Your task to perform on an android device: toggle show notifications on the lock screen Image 0: 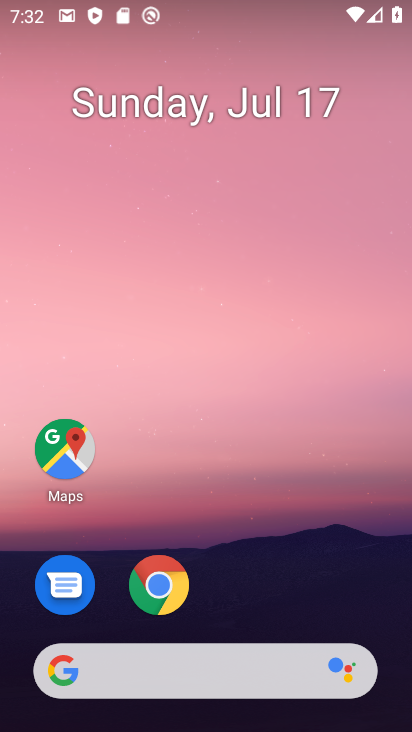
Step 0: drag from (200, 673) to (251, 0)
Your task to perform on an android device: toggle show notifications on the lock screen Image 1: 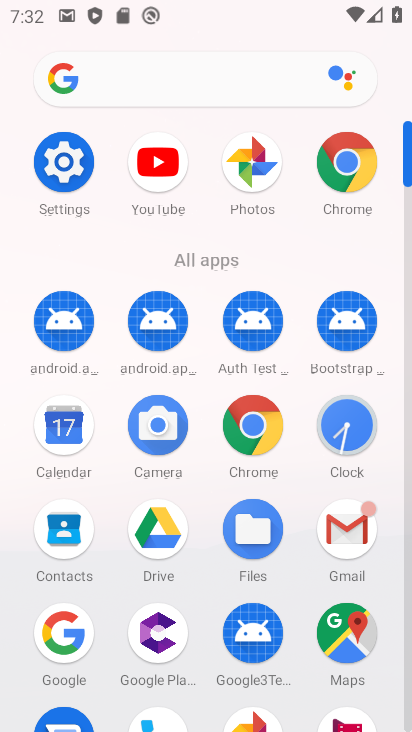
Step 1: click (63, 163)
Your task to perform on an android device: toggle show notifications on the lock screen Image 2: 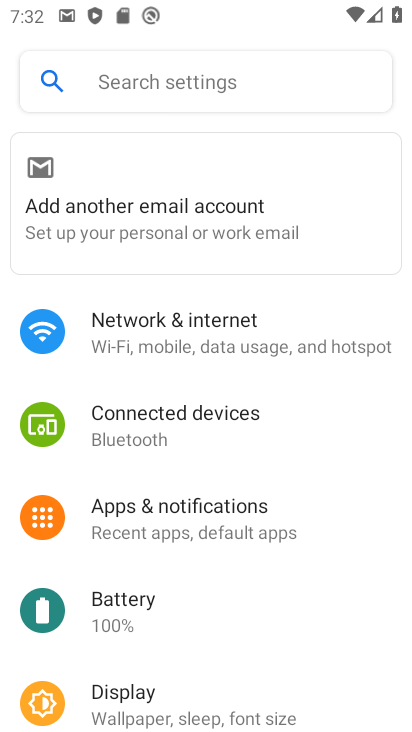
Step 2: click (219, 523)
Your task to perform on an android device: toggle show notifications on the lock screen Image 3: 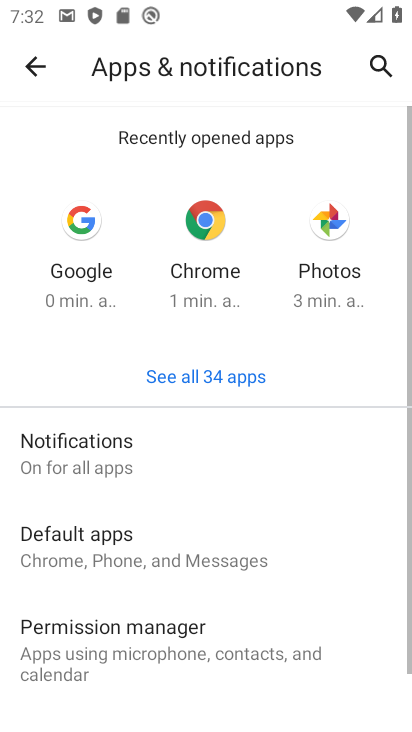
Step 3: click (89, 455)
Your task to perform on an android device: toggle show notifications on the lock screen Image 4: 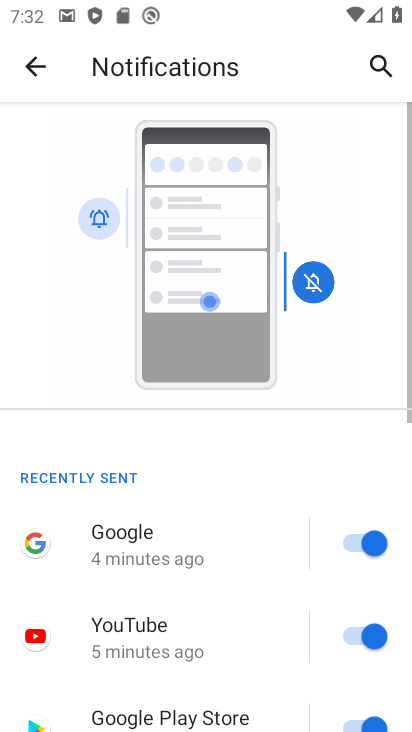
Step 4: drag from (256, 440) to (355, 63)
Your task to perform on an android device: toggle show notifications on the lock screen Image 5: 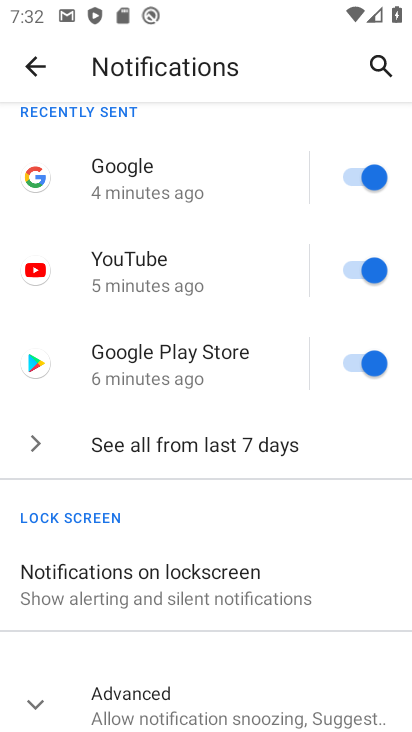
Step 5: click (165, 579)
Your task to perform on an android device: toggle show notifications on the lock screen Image 6: 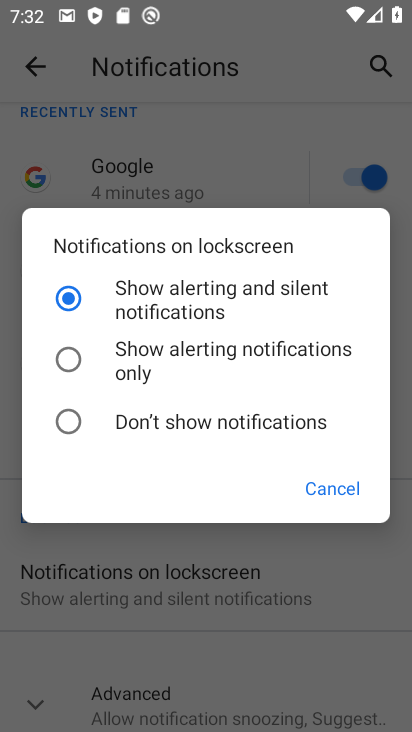
Step 6: click (66, 416)
Your task to perform on an android device: toggle show notifications on the lock screen Image 7: 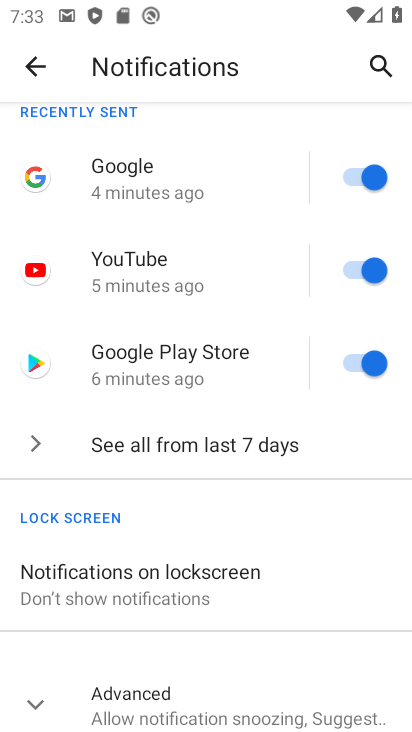
Step 7: task complete